Your task to perform on an android device: Go to privacy settings Image 0: 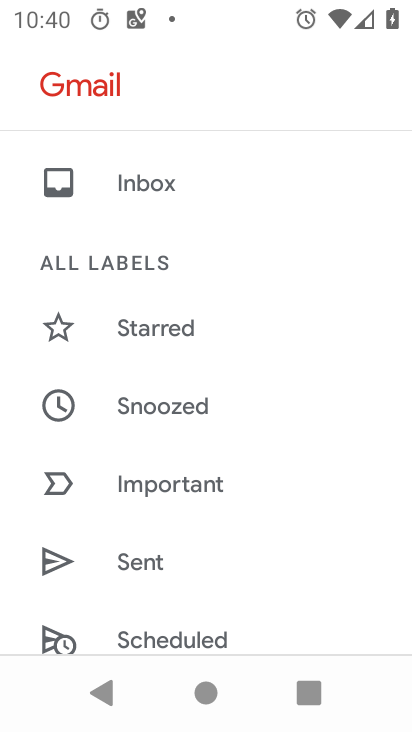
Step 0: press home button
Your task to perform on an android device: Go to privacy settings Image 1: 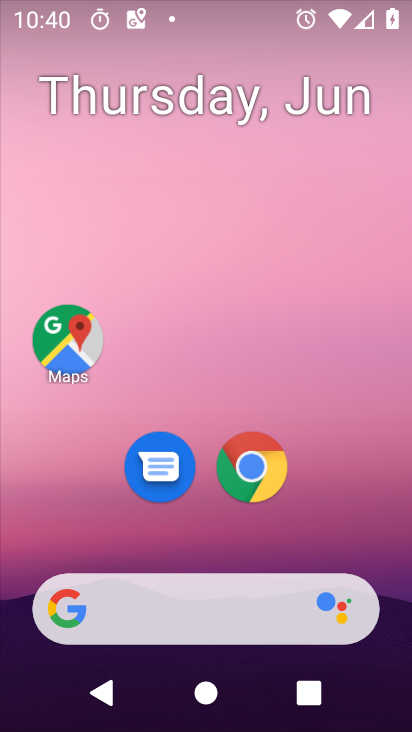
Step 1: drag from (12, 400) to (231, 101)
Your task to perform on an android device: Go to privacy settings Image 2: 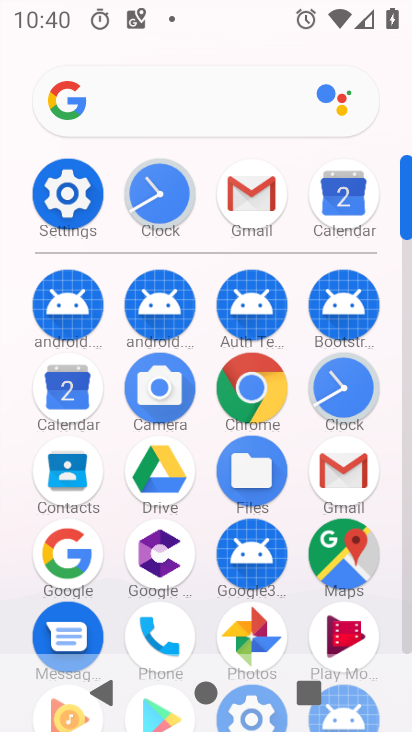
Step 2: click (73, 199)
Your task to perform on an android device: Go to privacy settings Image 3: 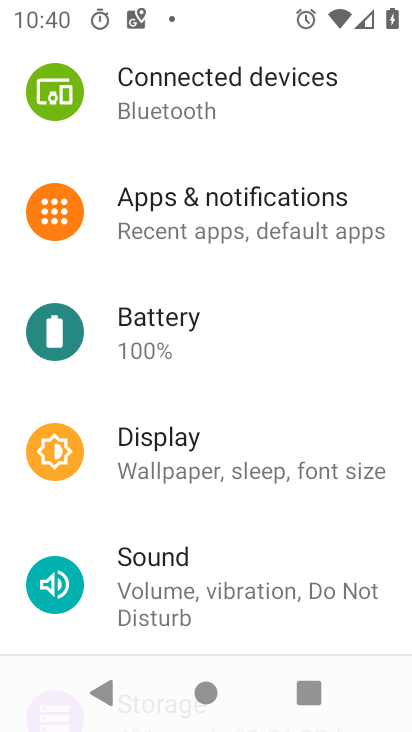
Step 3: drag from (24, 568) to (188, 107)
Your task to perform on an android device: Go to privacy settings Image 4: 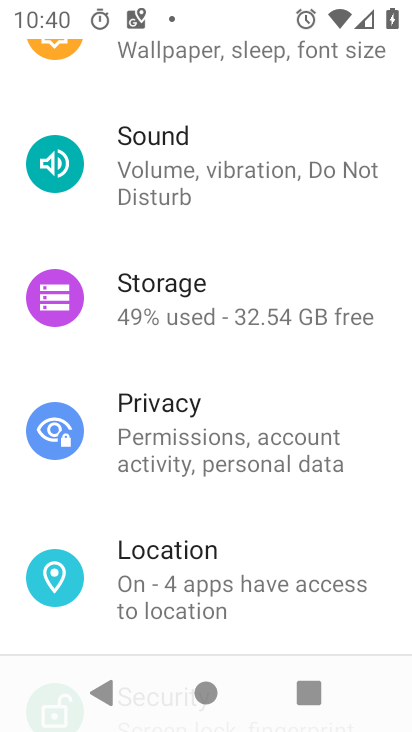
Step 4: click (142, 424)
Your task to perform on an android device: Go to privacy settings Image 5: 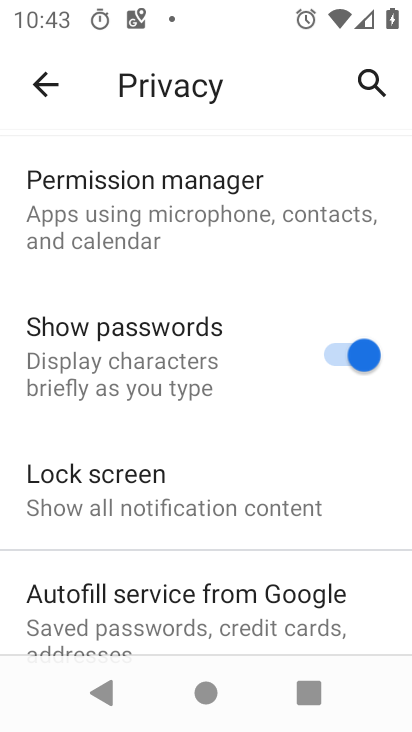
Step 5: press home button
Your task to perform on an android device: Go to privacy settings Image 6: 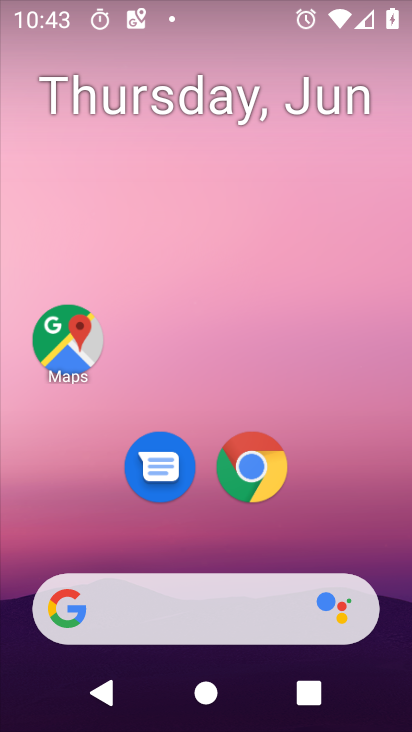
Step 6: drag from (51, 636) to (304, 217)
Your task to perform on an android device: Go to privacy settings Image 7: 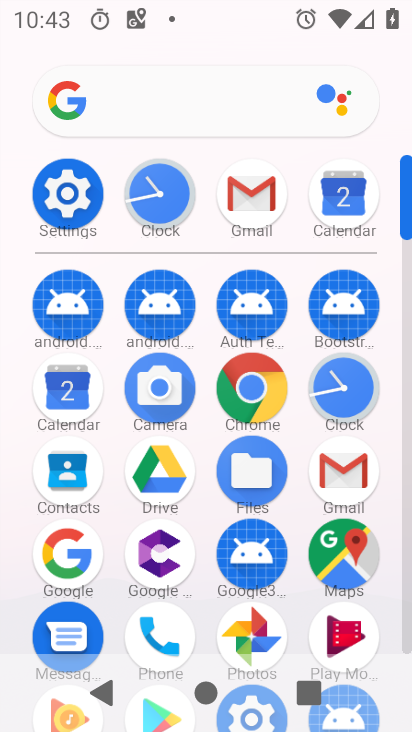
Step 7: click (66, 210)
Your task to perform on an android device: Go to privacy settings Image 8: 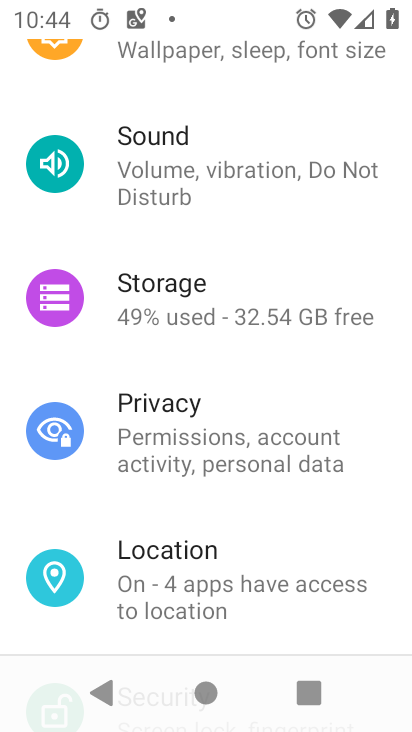
Step 8: click (169, 251)
Your task to perform on an android device: Go to privacy settings Image 9: 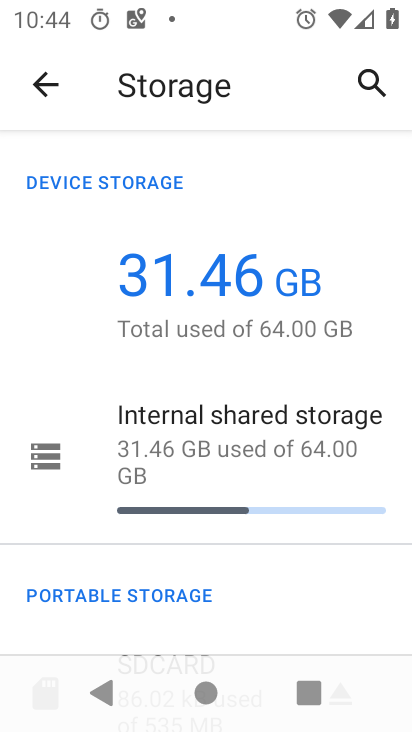
Step 9: press back button
Your task to perform on an android device: Go to privacy settings Image 10: 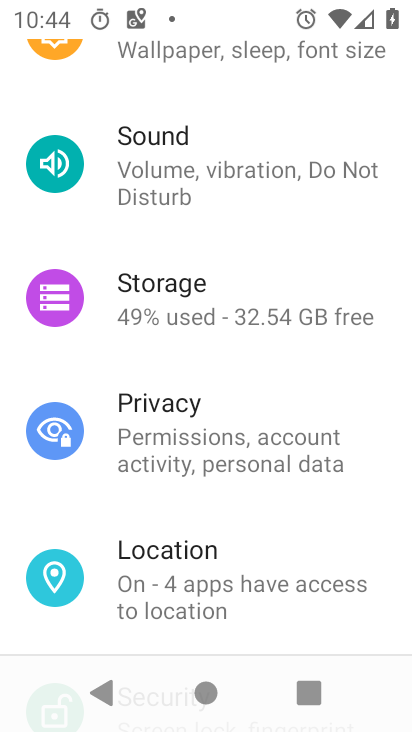
Step 10: click (157, 423)
Your task to perform on an android device: Go to privacy settings Image 11: 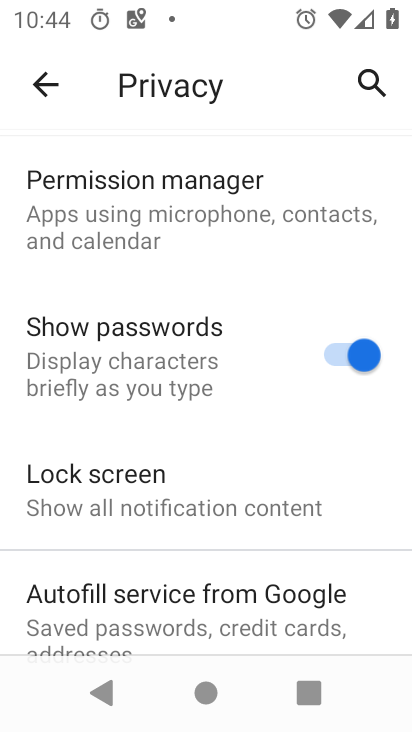
Step 11: task complete